Your task to perform on an android device: Open Chrome and go to settings Image 0: 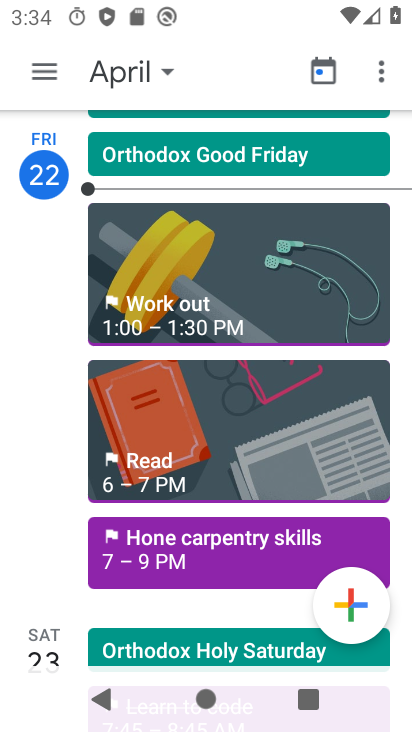
Step 0: press back button
Your task to perform on an android device: Open Chrome and go to settings Image 1: 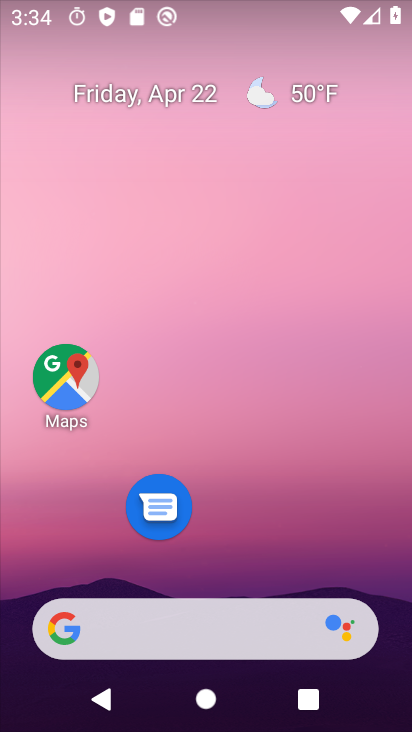
Step 1: drag from (225, 534) to (350, 10)
Your task to perform on an android device: Open Chrome and go to settings Image 2: 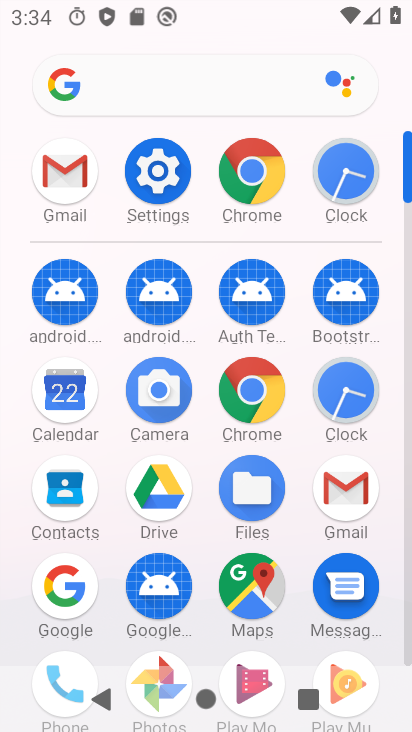
Step 2: click (244, 159)
Your task to perform on an android device: Open Chrome and go to settings Image 3: 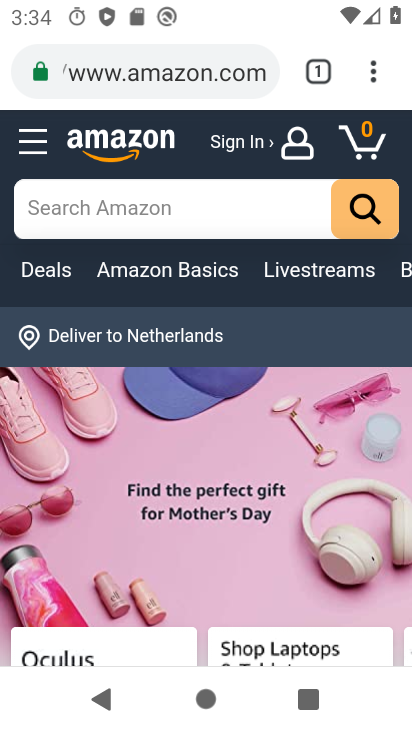
Step 3: click (370, 73)
Your task to perform on an android device: Open Chrome and go to settings Image 4: 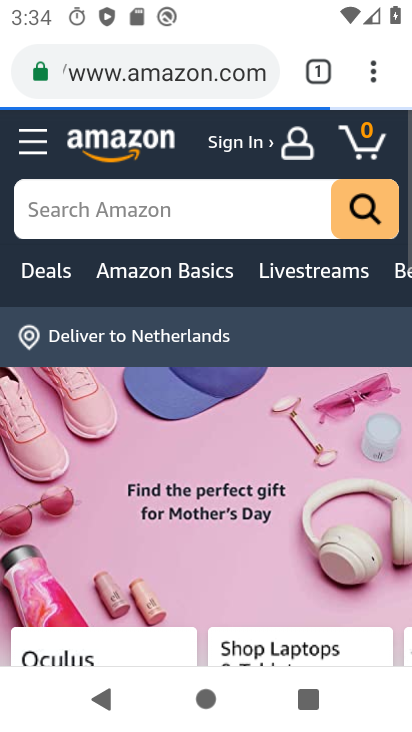
Step 4: task complete